Your task to perform on an android device: Search for Italian restaurants on Maps Image 0: 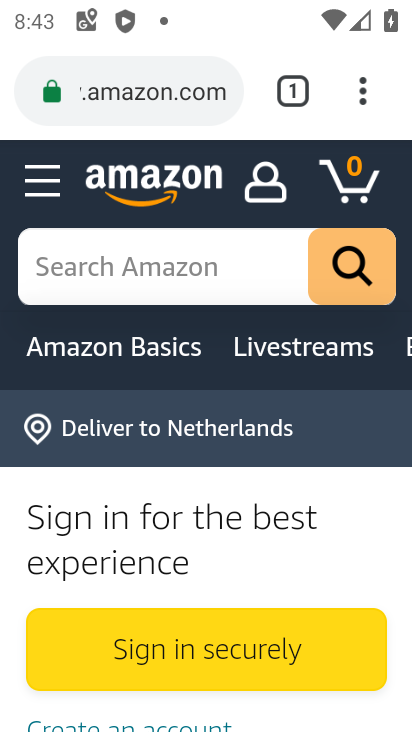
Step 0: press home button
Your task to perform on an android device: Search for Italian restaurants on Maps Image 1: 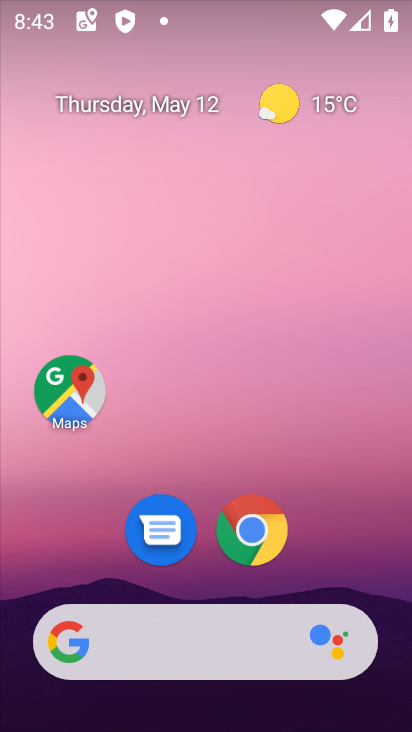
Step 1: click (68, 376)
Your task to perform on an android device: Search for Italian restaurants on Maps Image 2: 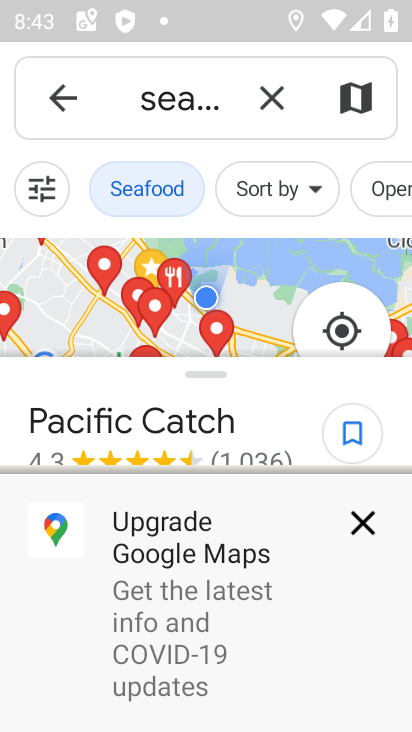
Step 2: click (274, 96)
Your task to perform on an android device: Search for Italian restaurants on Maps Image 3: 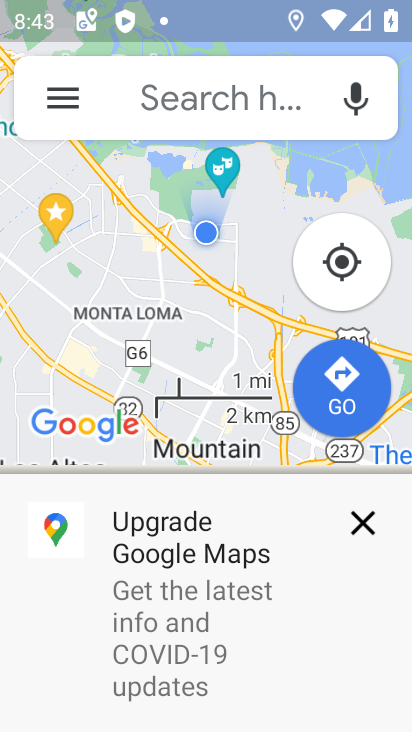
Step 3: click (181, 92)
Your task to perform on an android device: Search for Italian restaurants on Maps Image 4: 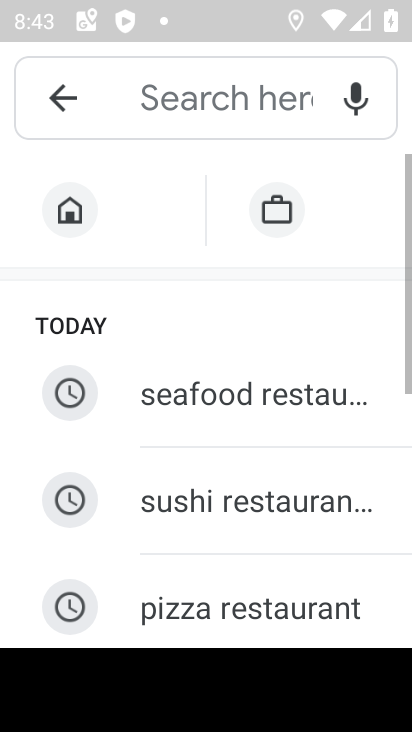
Step 4: drag from (237, 625) to (244, 246)
Your task to perform on an android device: Search for Italian restaurants on Maps Image 5: 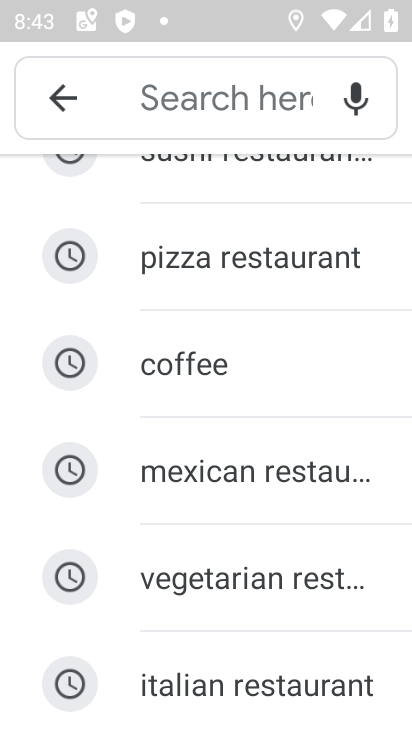
Step 5: click (208, 688)
Your task to perform on an android device: Search for Italian restaurants on Maps Image 6: 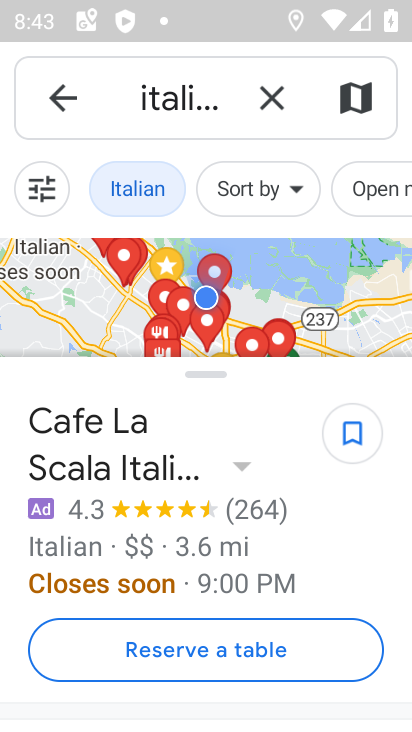
Step 6: task complete